Your task to perform on an android device: Is it going to rain this weekend? Image 0: 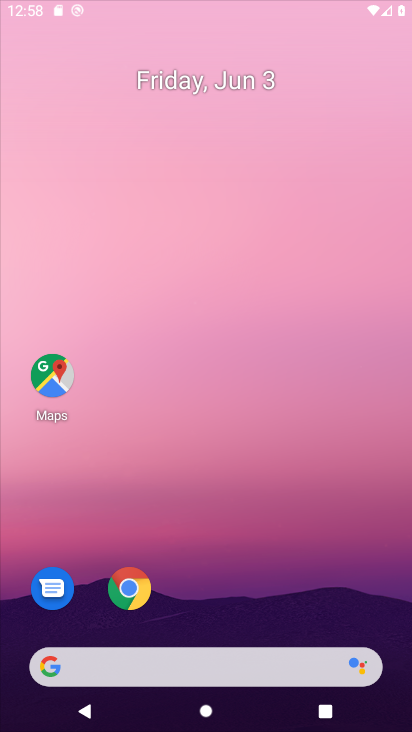
Step 0: drag from (236, 448) to (235, 367)
Your task to perform on an android device: Is it going to rain this weekend? Image 1: 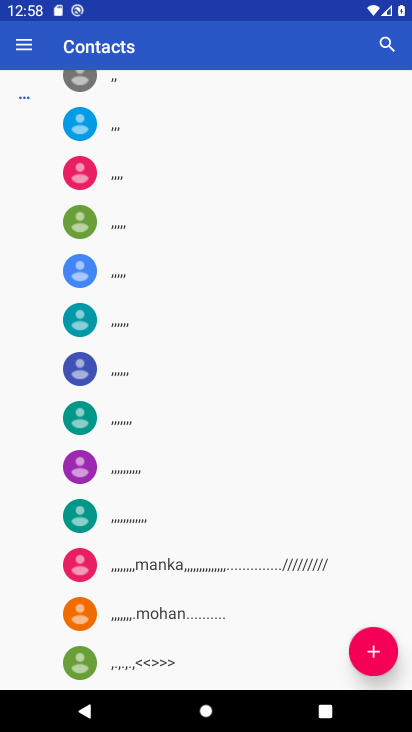
Step 1: press home button
Your task to perform on an android device: Is it going to rain this weekend? Image 2: 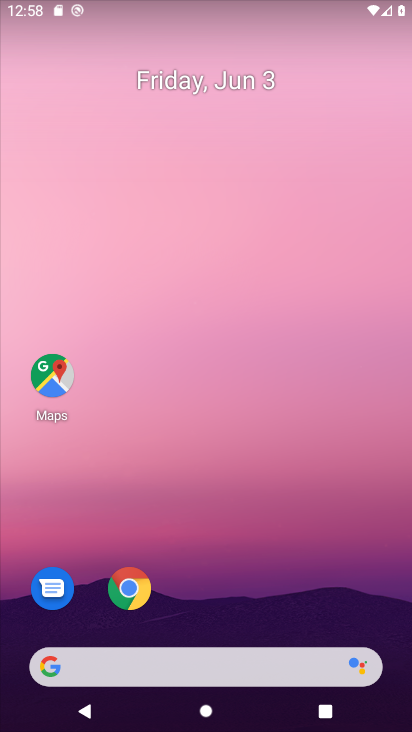
Step 2: drag from (294, 636) to (314, 332)
Your task to perform on an android device: Is it going to rain this weekend? Image 3: 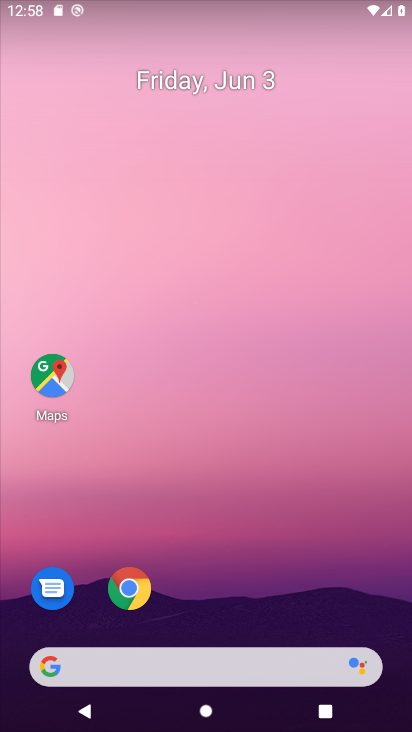
Step 3: drag from (186, 658) to (181, 216)
Your task to perform on an android device: Is it going to rain this weekend? Image 4: 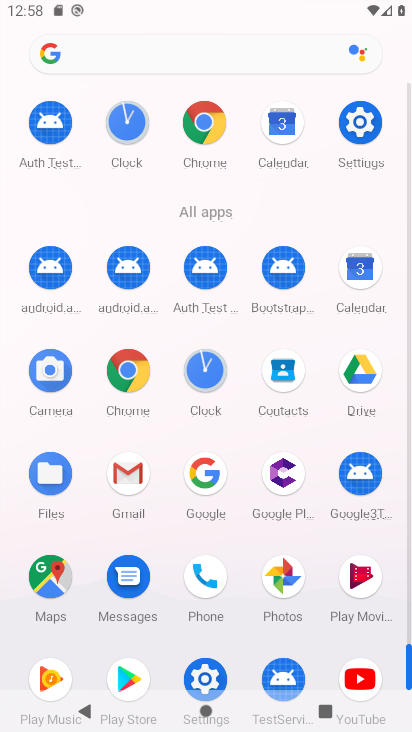
Step 4: click (210, 475)
Your task to perform on an android device: Is it going to rain this weekend? Image 5: 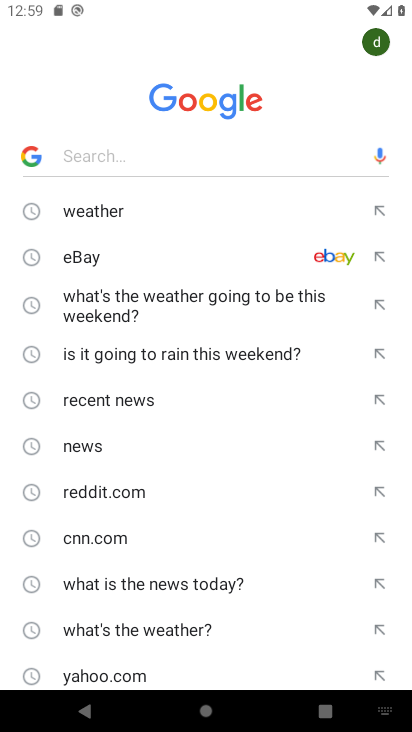
Step 5: click (135, 214)
Your task to perform on an android device: Is it going to rain this weekend? Image 6: 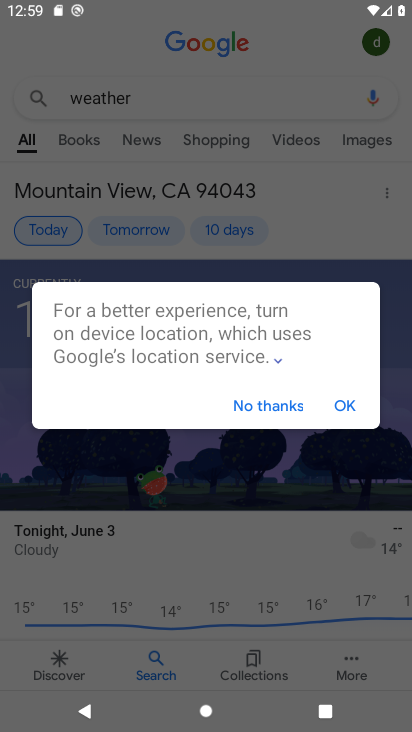
Step 6: click (342, 407)
Your task to perform on an android device: Is it going to rain this weekend? Image 7: 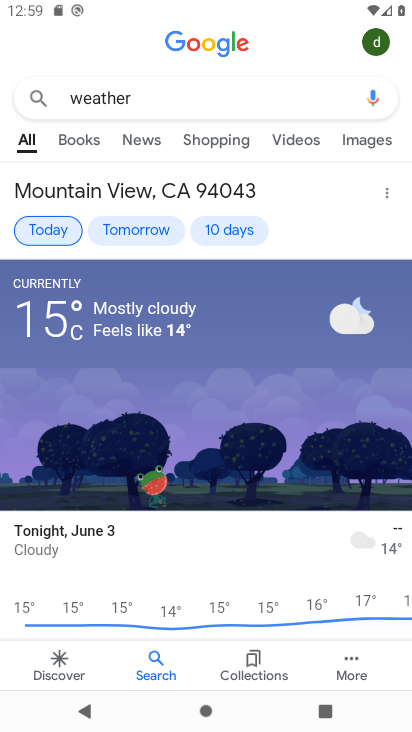
Step 7: click (220, 233)
Your task to perform on an android device: Is it going to rain this weekend? Image 8: 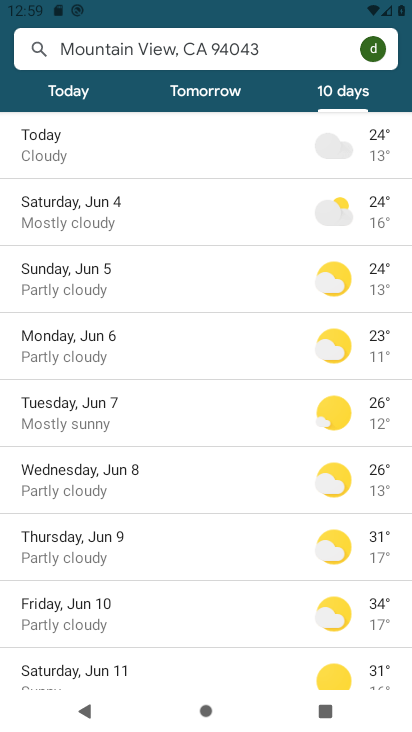
Step 8: task complete